Your task to perform on an android device: Go to wifi settings Image 0: 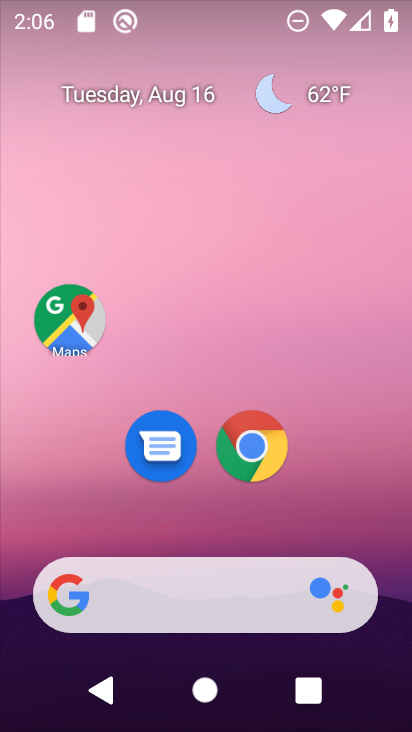
Step 0: press home button
Your task to perform on an android device: Go to wifi settings Image 1: 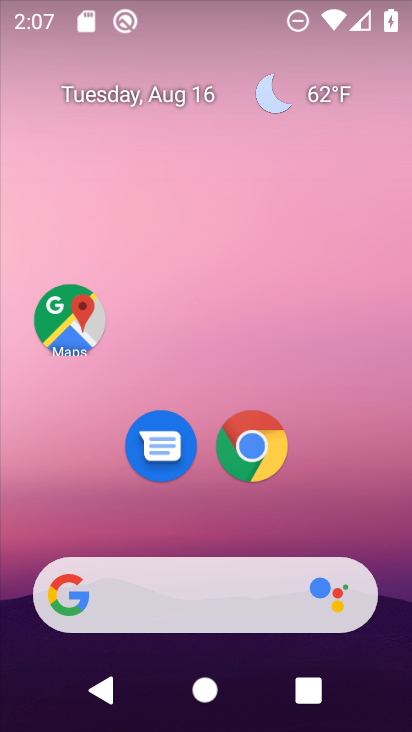
Step 1: drag from (193, 539) to (251, 8)
Your task to perform on an android device: Go to wifi settings Image 2: 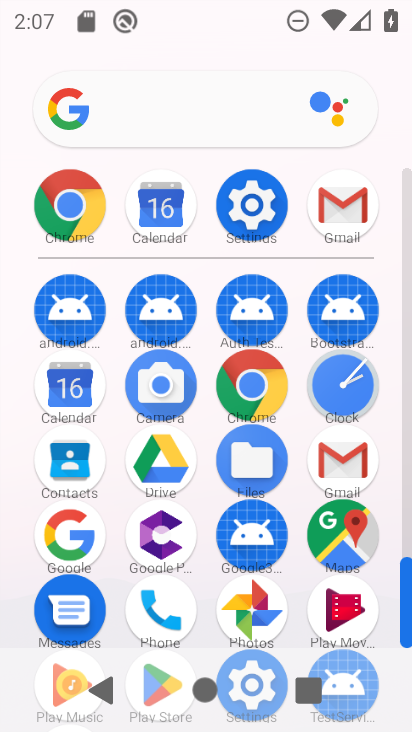
Step 2: click (249, 196)
Your task to perform on an android device: Go to wifi settings Image 3: 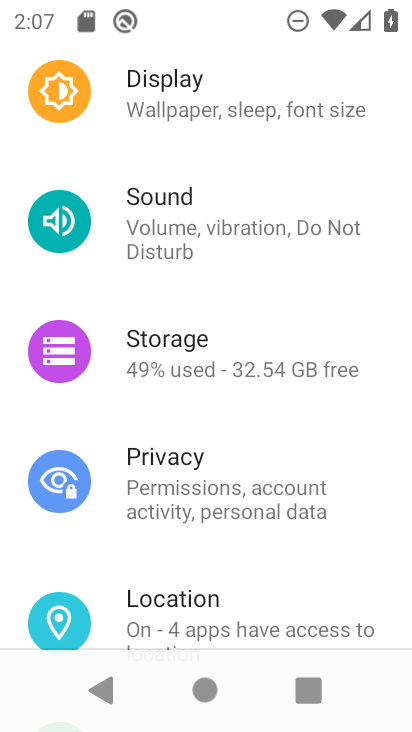
Step 3: drag from (153, 115) to (174, 523)
Your task to perform on an android device: Go to wifi settings Image 4: 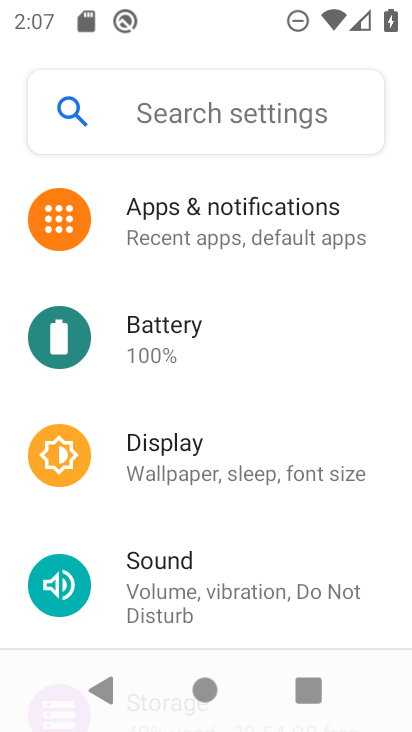
Step 4: drag from (107, 208) to (115, 701)
Your task to perform on an android device: Go to wifi settings Image 5: 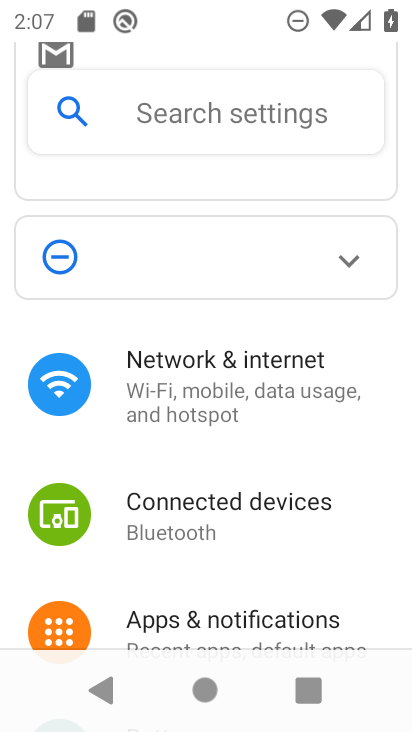
Step 5: click (111, 373)
Your task to perform on an android device: Go to wifi settings Image 6: 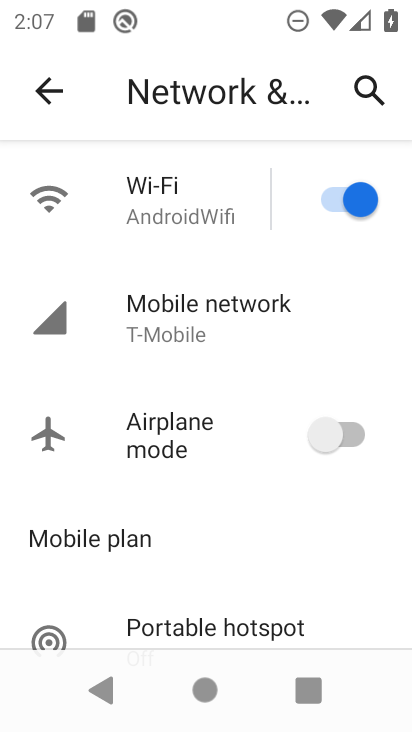
Step 6: click (239, 198)
Your task to perform on an android device: Go to wifi settings Image 7: 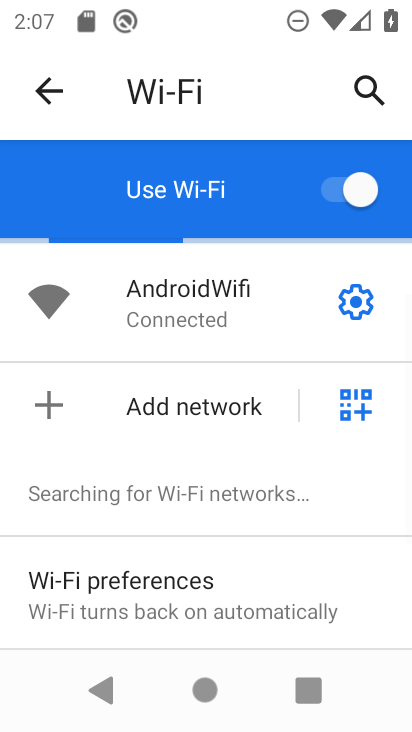
Step 7: task complete